Your task to perform on an android device: turn off priority inbox in the gmail app Image 0: 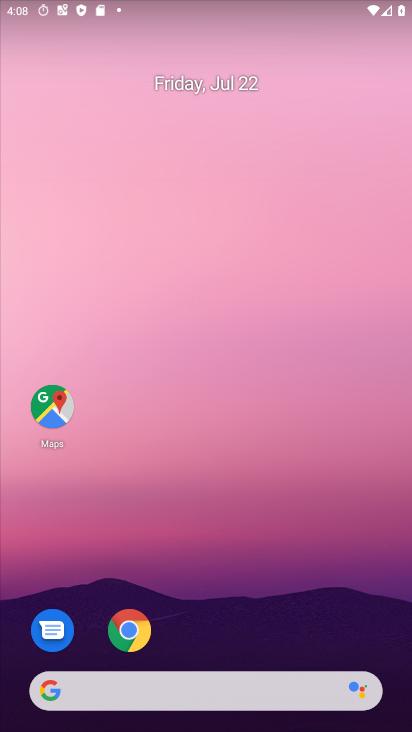
Step 0: drag from (220, 593) to (218, 12)
Your task to perform on an android device: turn off priority inbox in the gmail app Image 1: 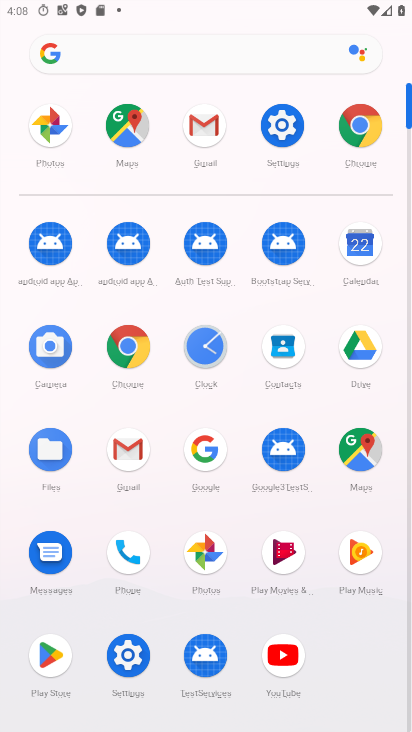
Step 1: click (117, 464)
Your task to perform on an android device: turn off priority inbox in the gmail app Image 2: 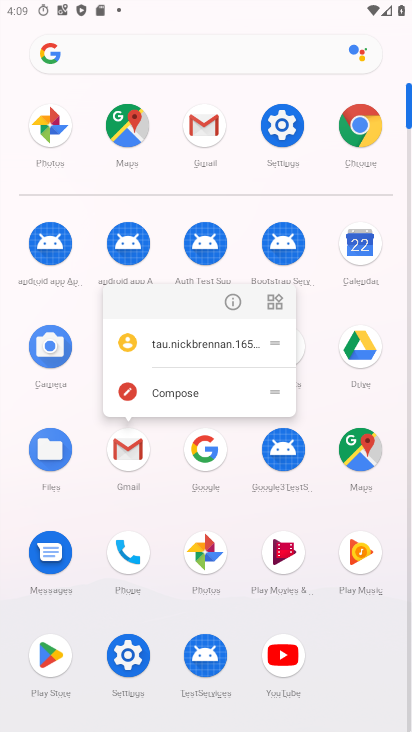
Step 2: click (271, 137)
Your task to perform on an android device: turn off priority inbox in the gmail app Image 3: 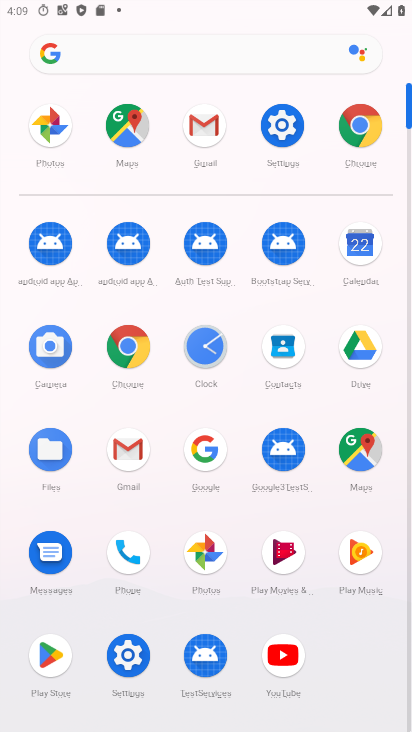
Step 3: click (294, 129)
Your task to perform on an android device: turn off priority inbox in the gmail app Image 4: 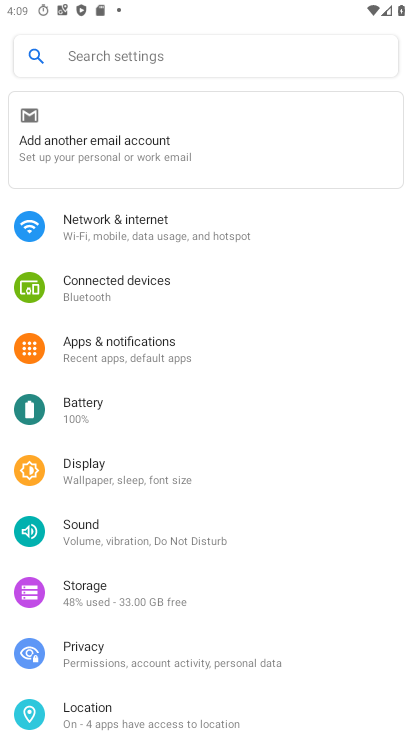
Step 4: drag from (183, 713) to (204, 209)
Your task to perform on an android device: turn off priority inbox in the gmail app Image 5: 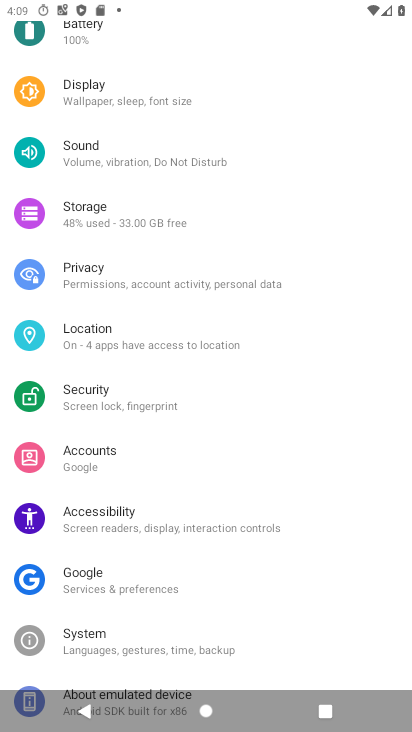
Step 5: press home button
Your task to perform on an android device: turn off priority inbox in the gmail app Image 6: 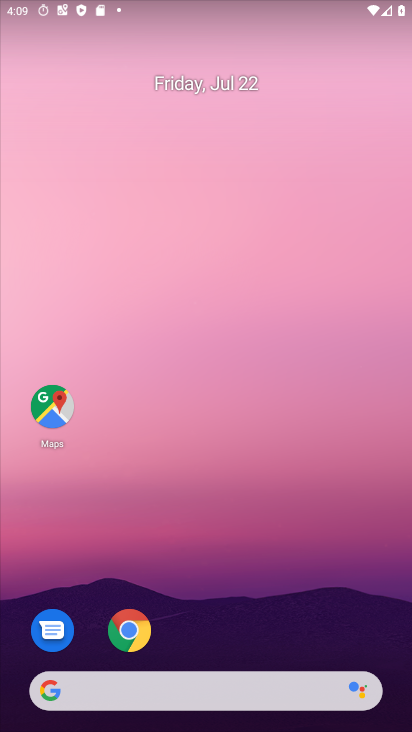
Step 6: drag from (245, 597) to (235, 13)
Your task to perform on an android device: turn off priority inbox in the gmail app Image 7: 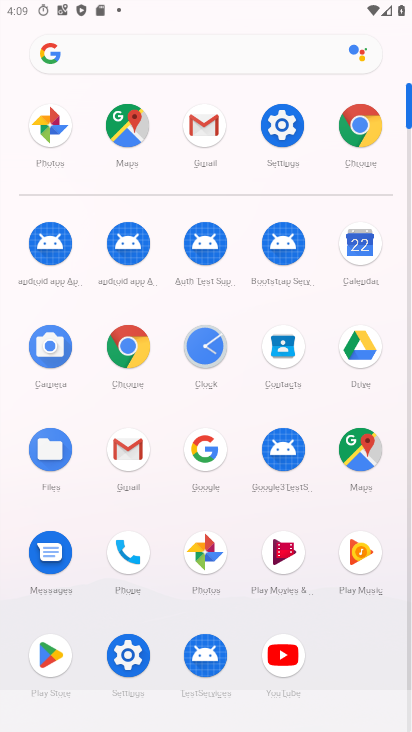
Step 7: click (125, 455)
Your task to perform on an android device: turn off priority inbox in the gmail app Image 8: 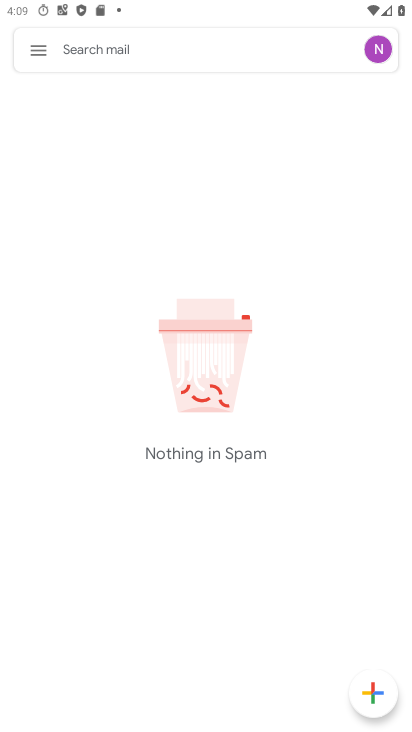
Step 8: click (41, 55)
Your task to perform on an android device: turn off priority inbox in the gmail app Image 9: 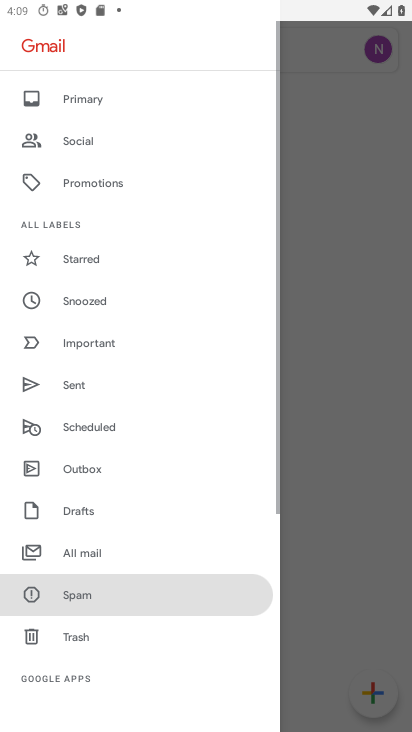
Step 9: drag from (98, 684) to (95, 316)
Your task to perform on an android device: turn off priority inbox in the gmail app Image 10: 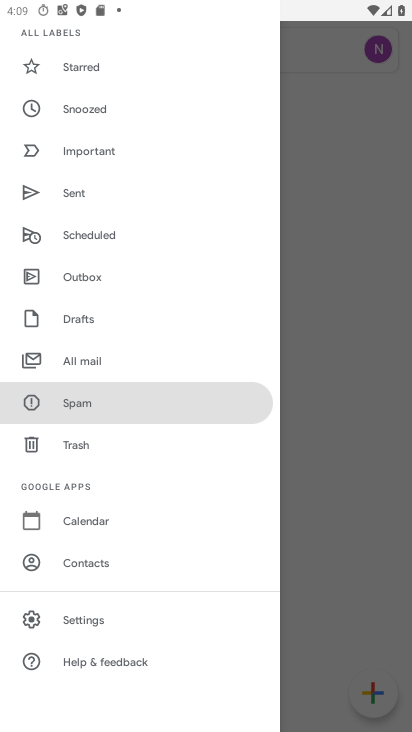
Step 10: click (79, 626)
Your task to perform on an android device: turn off priority inbox in the gmail app Image 11: 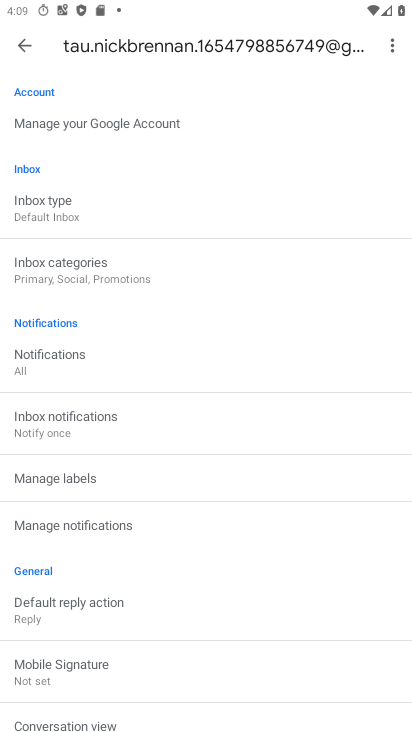
Step 11: click (87, 205)
Your task to perform on an android device: turn off priority inbox in the gmail app Image 12: 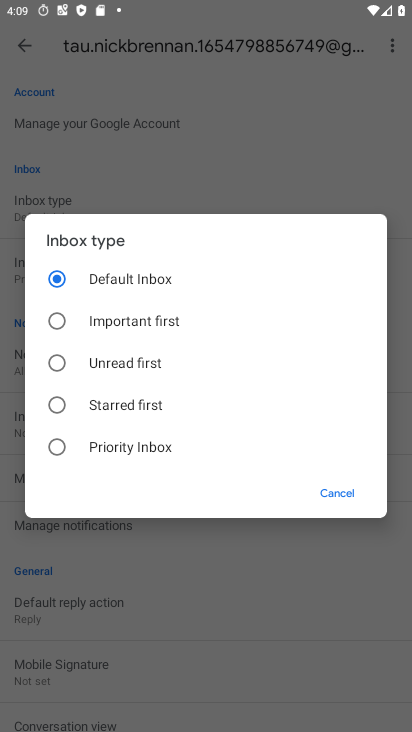
Step 12: task complete